Your task to perform on an android device: Open battery settings Image 0: 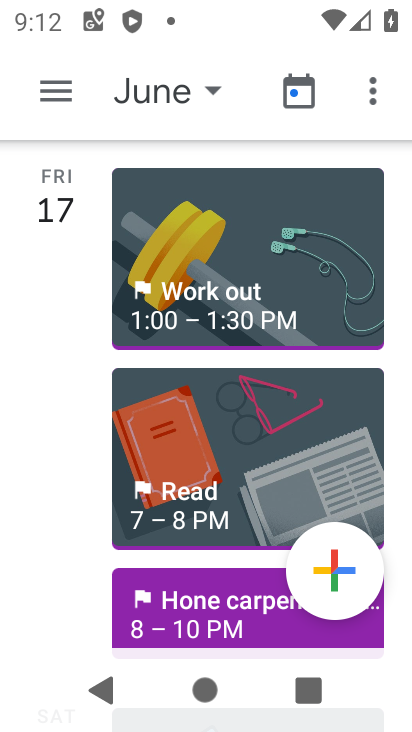
Step 0: press home button
Your task to perform on an android device: Open battery settings Image 1: 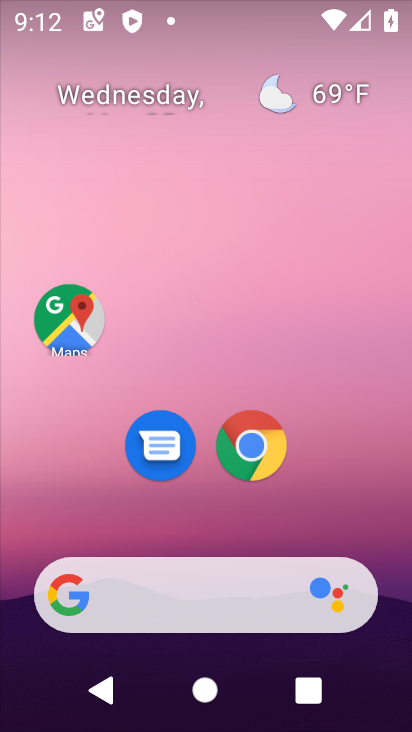
Step 1: drag from (350, 509) to (333, 49)
Your task to perform on an android device: Open battery settings Image 2: 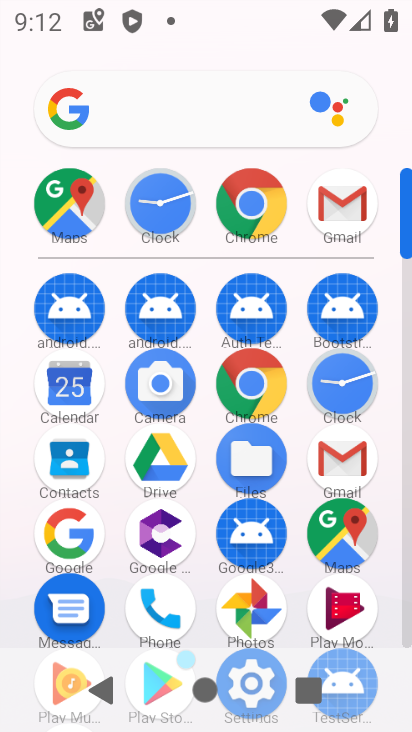
Step 2: drag from (275, 261) to (272, 30)
Your task to perform on an android device: Open battery settings Image 3: 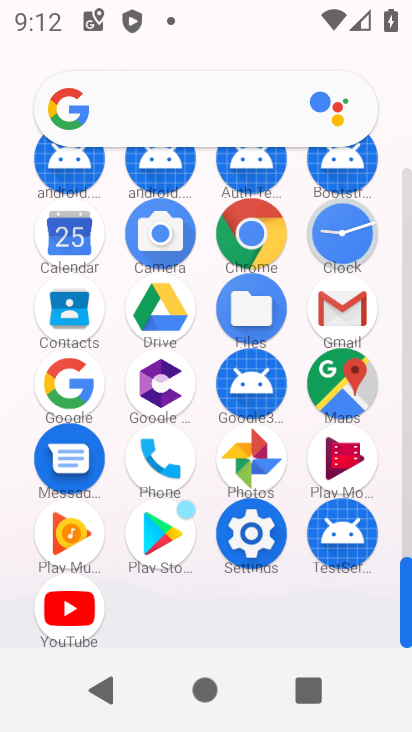
Step 3: click (253, 541)
Your task to perform on an android device: Open battery settings Image 4: 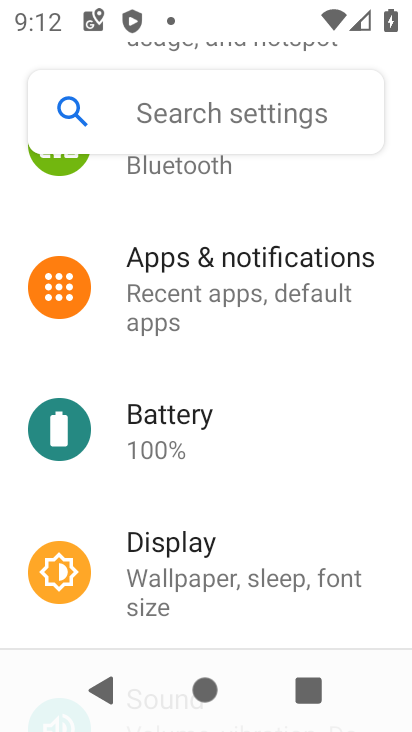
Step 4: click (163, 436)
Your task to perform on an android device: Open battery settings Image 5: 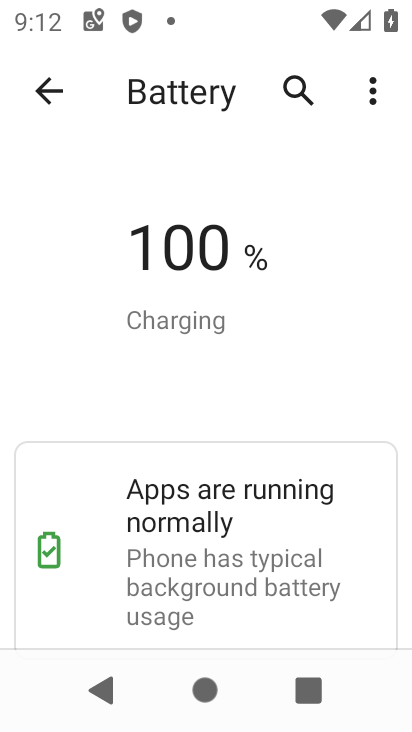
Step 5: task complete